Your task to perform on an android device: turn off location Image 0: 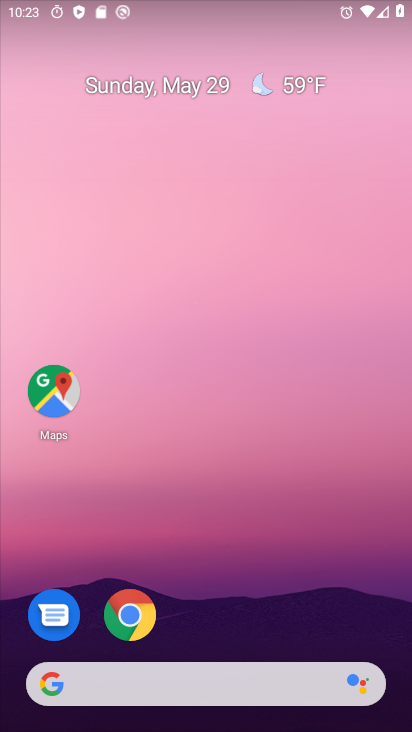
Step 0: drag from (255, 571) to (286, 77)
Your task to perform on an android device: turn off location Image 1: 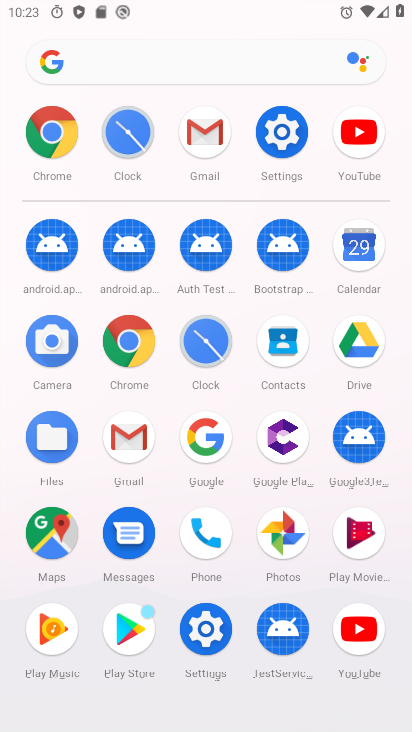
Step 1: click (290, 127)
Your task to perform on an android device: turn off location Image 2: 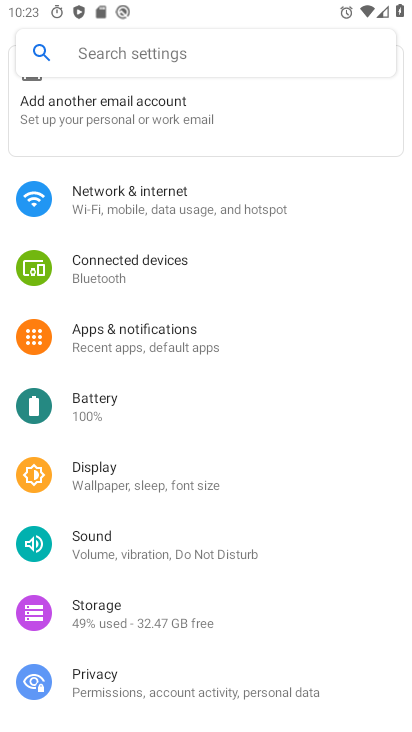
Step 2: drag from (159, 641) to (225, 233)
Your task to perform on an android device: turn off location Image 3: 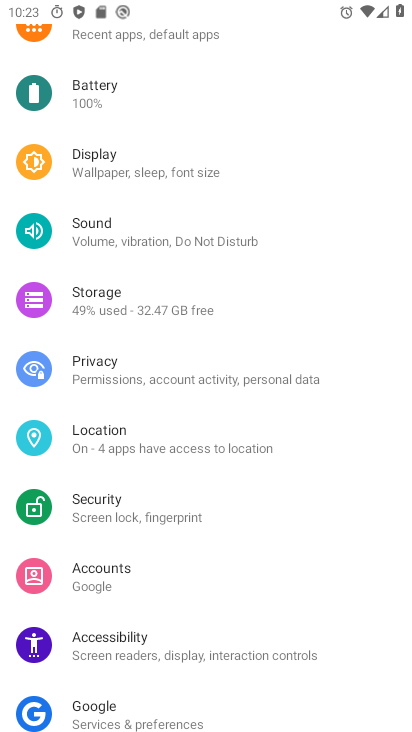
Step 3: click (91, 422)
Your task to perform on an android device: turn off location Image 4: 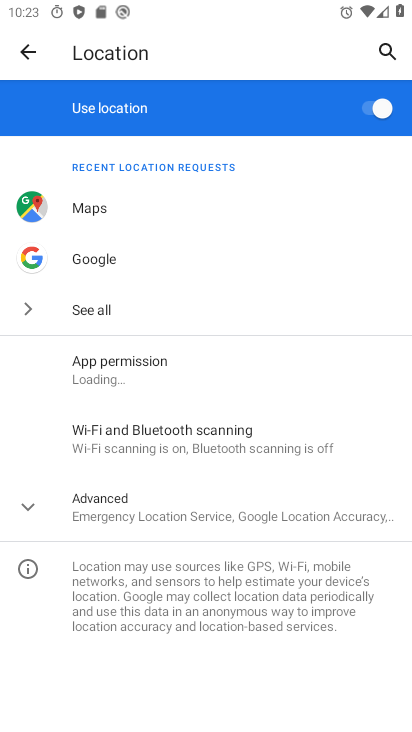
Step 4: click (370, 107)
Your task to perform on an android device: turn off location Image 5: 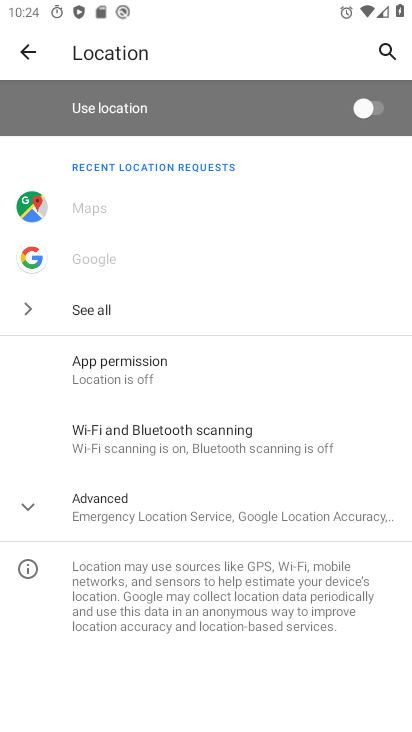
Step 5: task complete